Your task to perform on an android device: Open sound settings Image 0: 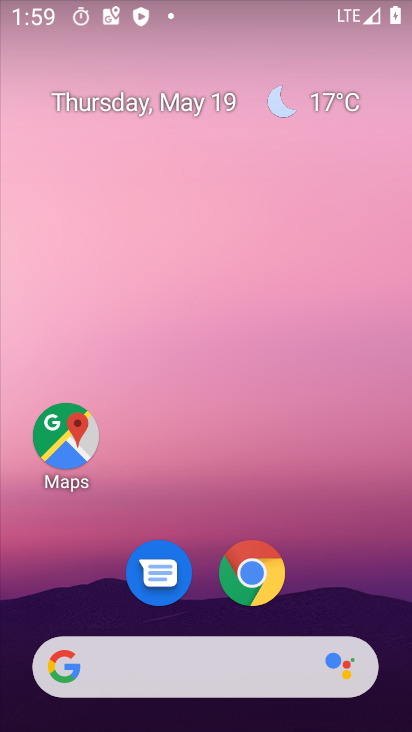
Step 0: drag from (206, 587) to (261, 49)
Your task to perform on an android device: Open sound settings Image 1: 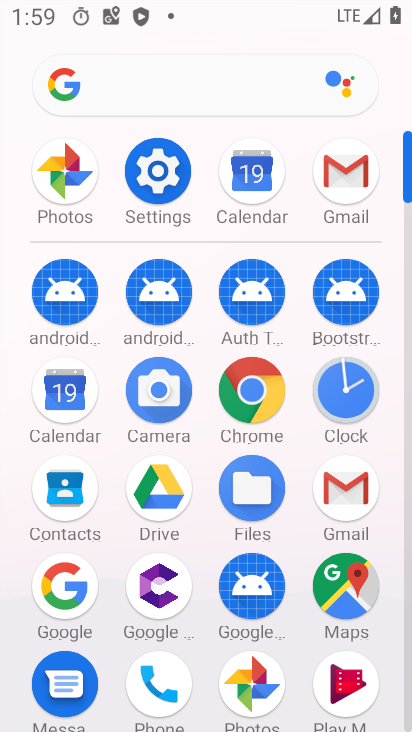
Step 1: click (177, 170)
Your task to perform on an android device: Open sound settings Image 2: 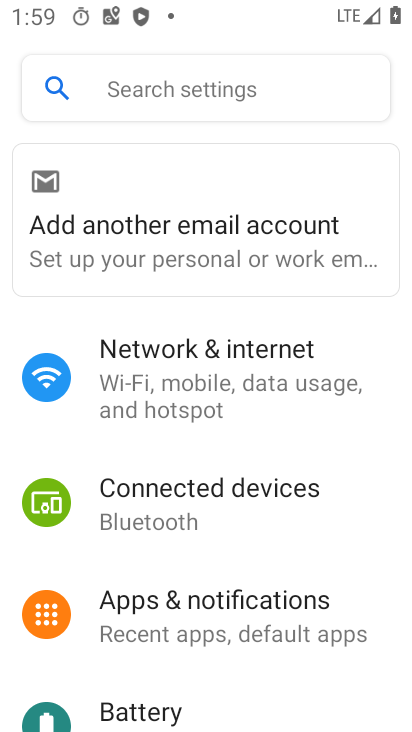
Step 2: drag from (245, 618) to (326, 48)
Your task to perform on an android device: Open sound settings Image 3: 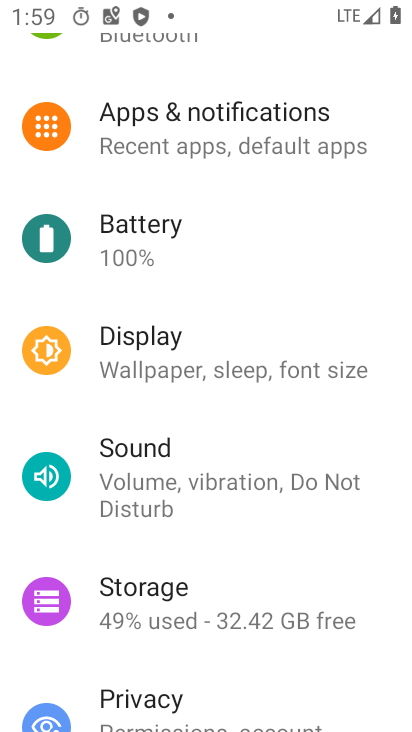
Step 3: click (104, 462)
Your task to perform on an android device: Open sound settings Image 4: 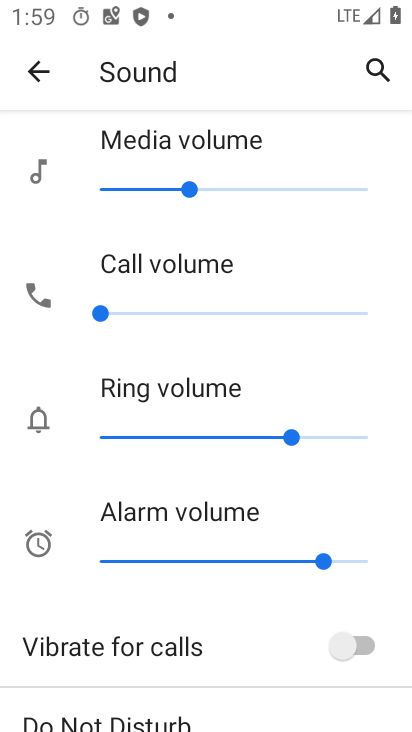
Step 4: task complete